Your task to perform on an android device: set default search engine in the chrome app Image 0: 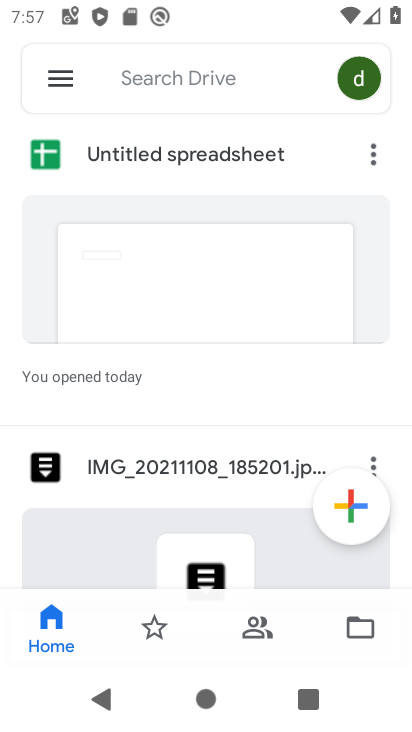
Step 0: press home button
Your task to perform on an android device: set default search engine in the chrome app Image 1: 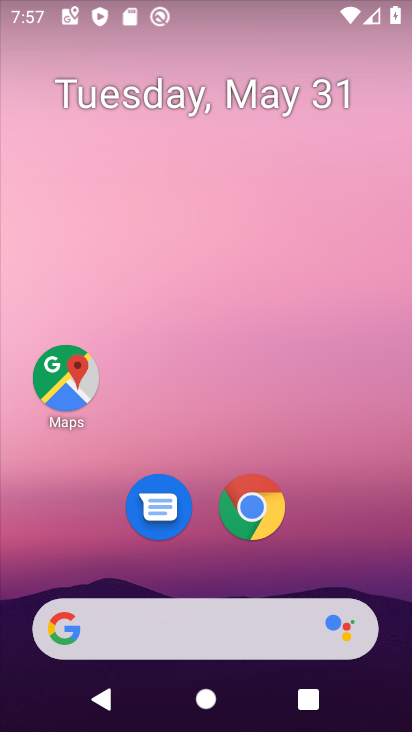
Step 1: click (257, 510)
Your task to perform on an android device: set default search engine in the chrome app Image 2: 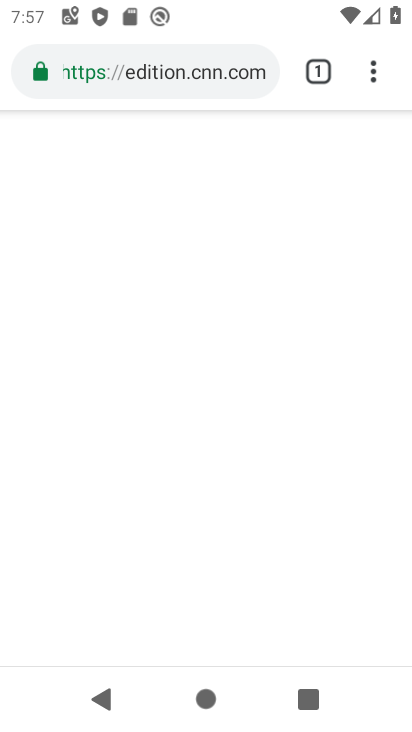
Step 2: click (384, 78)
Your task to perform on an android device: set default search engine in the chrome app Image 3: 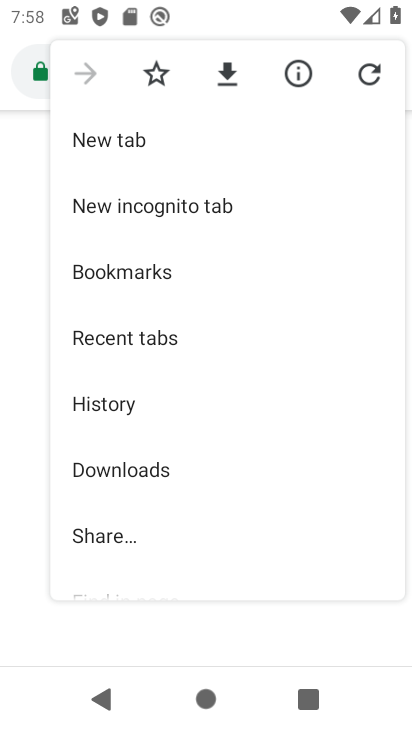
Step 3: drag from (148, 517) to (264, 121)
Your task to perform on an android device: set default search engine in the chrome app Image 4: 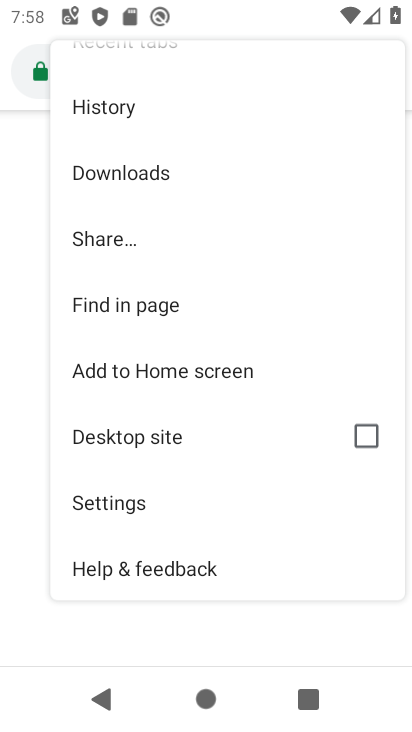
Step 4: drag from (77, 572) to (226, 251)
Your task to perform on an android device: set default search engine in the chrome app Image 5: 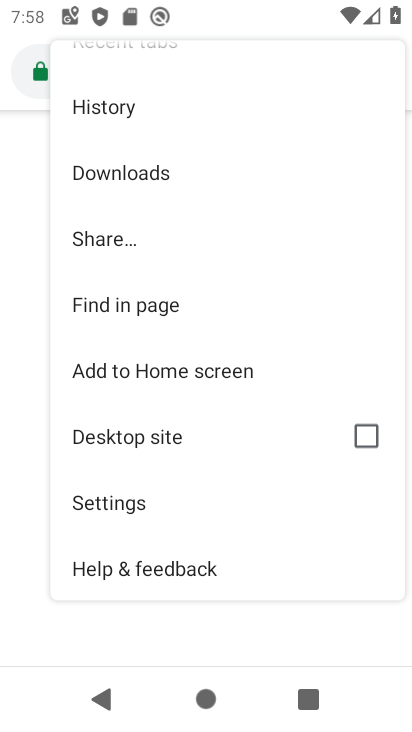
Step 5: click (128, 499)
Your task to perform on an android device: set default search engine in the chrome app Image 6: 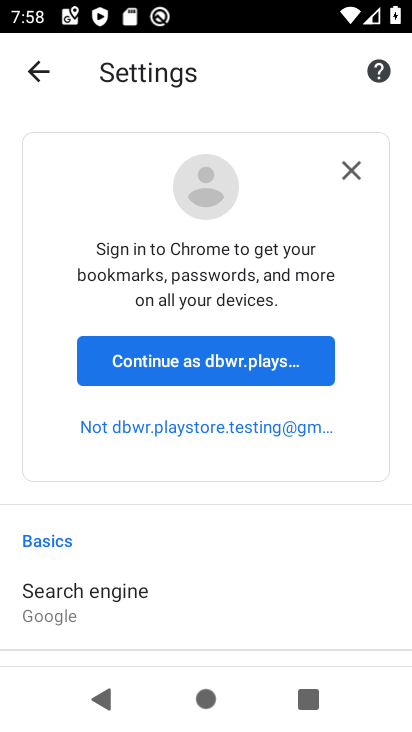
Step 6: click (92, 595)
Your task to perform on an android device: set default search engine in the chrome app Image 7: 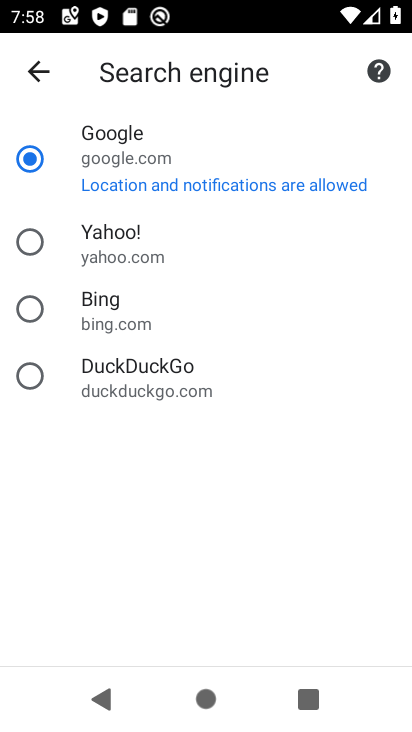
Step 7: task complete